Your task to perform on an android device: toggle data saver in the chrome app Image 0: 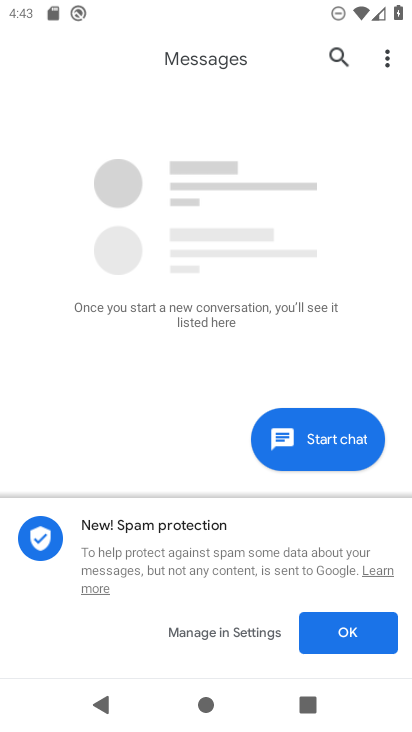
Step 0: press home button
Your task to perform on an android device: toggle data saver in the chrome app Image 1: 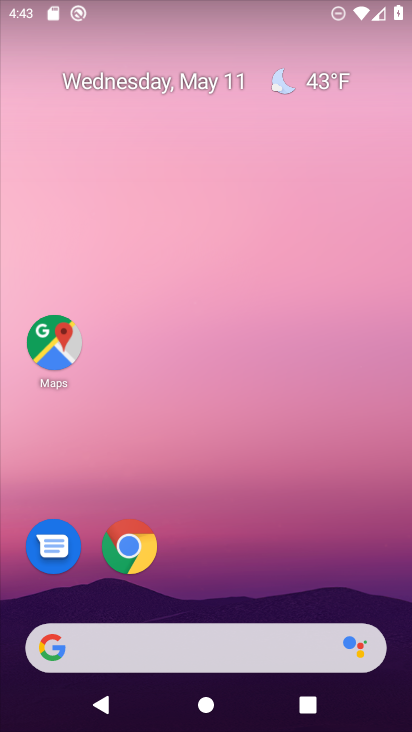
Step 1: drag from (176, 620) to (142, 261)
Your task to perform on an android device: toggle data saver in the chrome app Image 2: 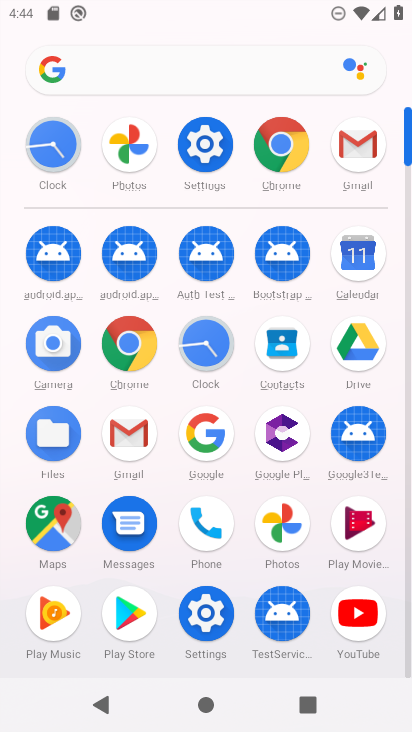
Step 2: click (278, 146)
Your task to perform on an android device: toggle data saver in the chrome app Image 3: 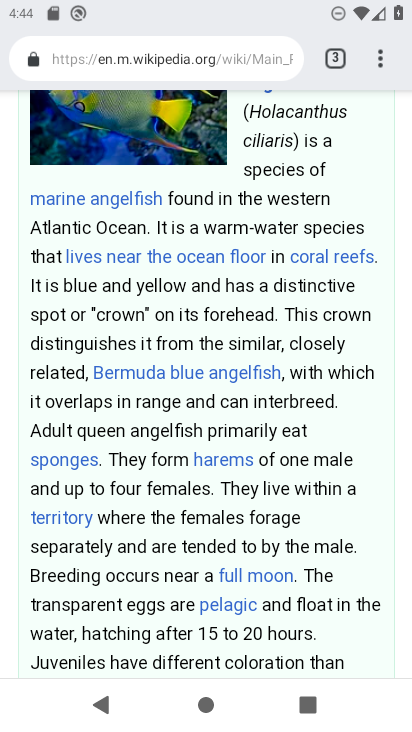
Step 3: click (386, 53)
Your task to perform on an android device: toggle data saver in the chrome app Image 4: 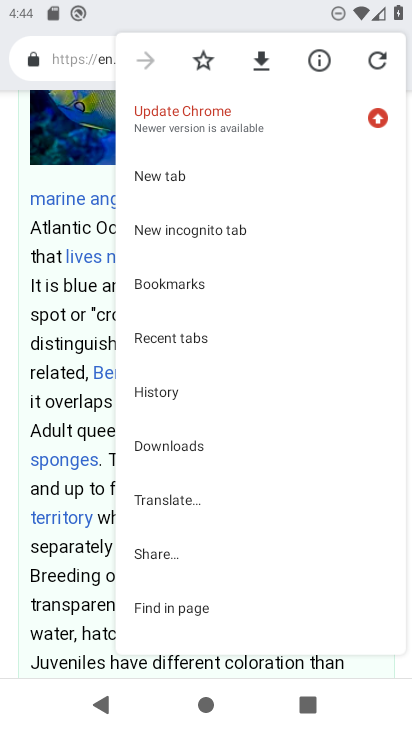
Step 4: drag from (164, 623) to (174, 318)
Your task to perform on an android device: toggle data saver in the chrome app Image 5: 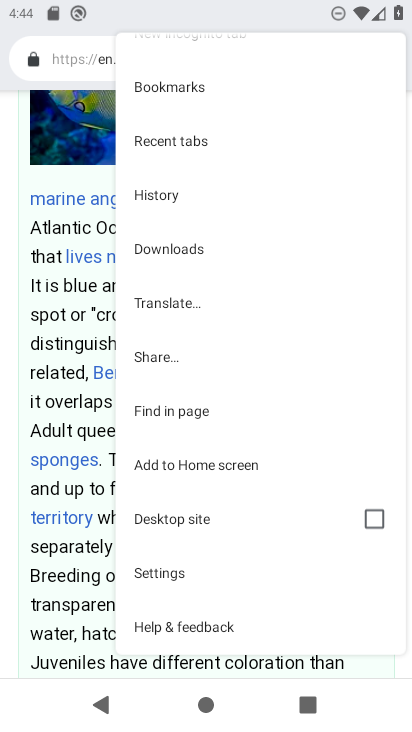
Step 5: click (163, 575)
Your task to perform on an android device: toggle data saver in the chrome app Image 6: 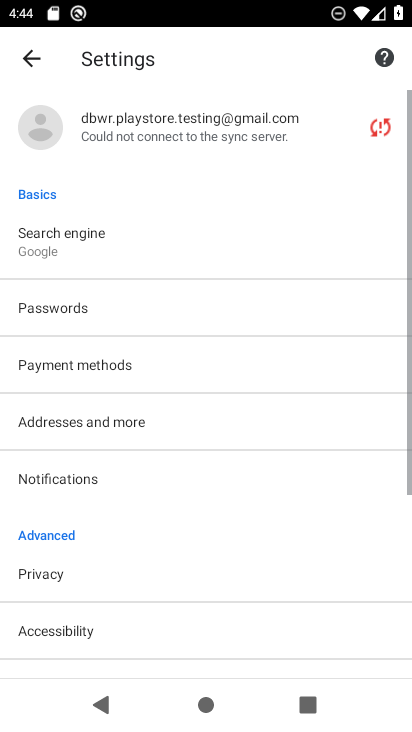
Step 6: drag from (168, 626) to (188, 270)
Your task to perform on an android device: toggle data saver in the chrome app Image 7: 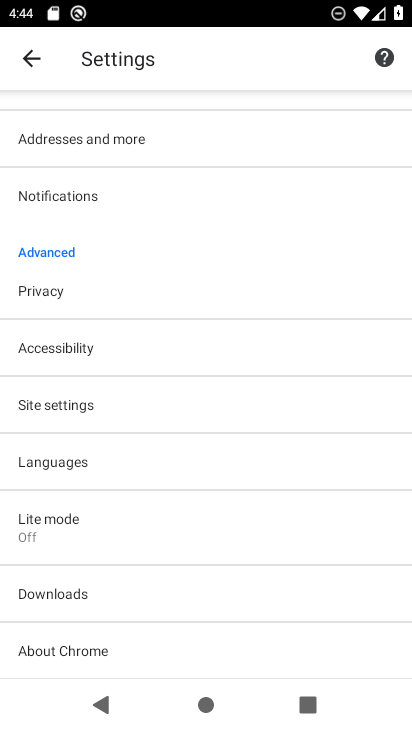
Step 7: click (72, 516)
Your task to perform on an android device: toggle data saver in the chrome app Image 8: 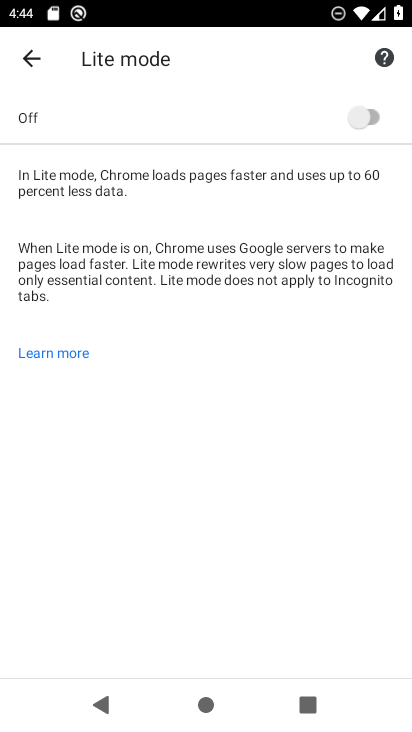
Step 8: click (379, 111)
Your task to perform on an android device: toggle data saver in the chrome app Image 9: 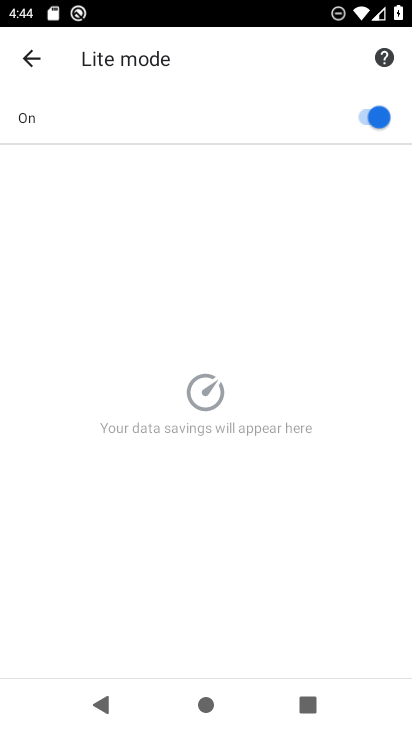
Step 9: task complete